Your task to perform on an android device: Go to Reddit.com Image 0: 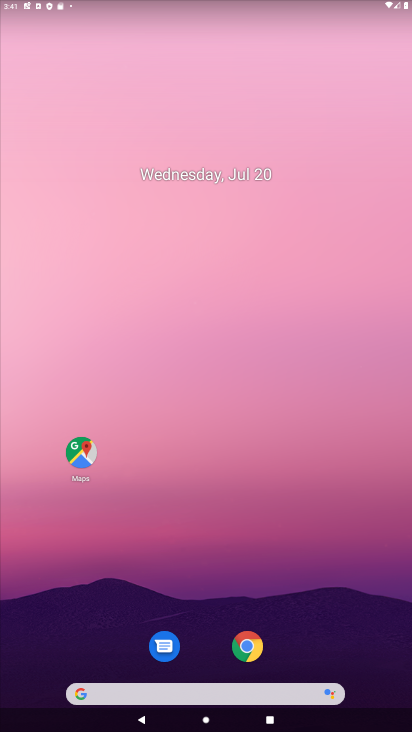
Step 0: click (257, 633)
Your task to perform on an android device: Go to Reddit.com Image 1: 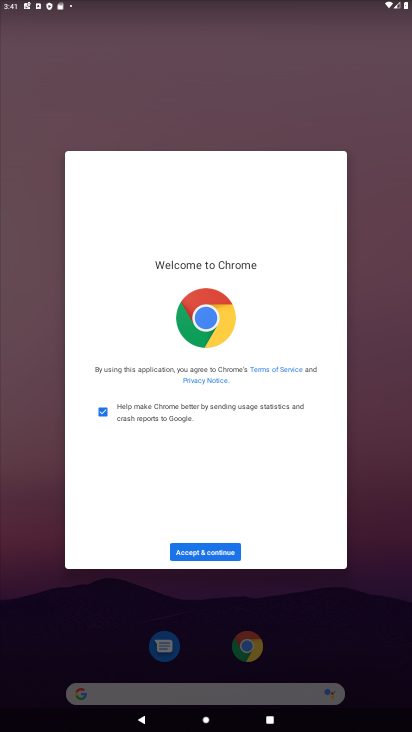
Step 1: click (219, 560)
Your task to perform on an android device: Go to Reddit.com Image 2: 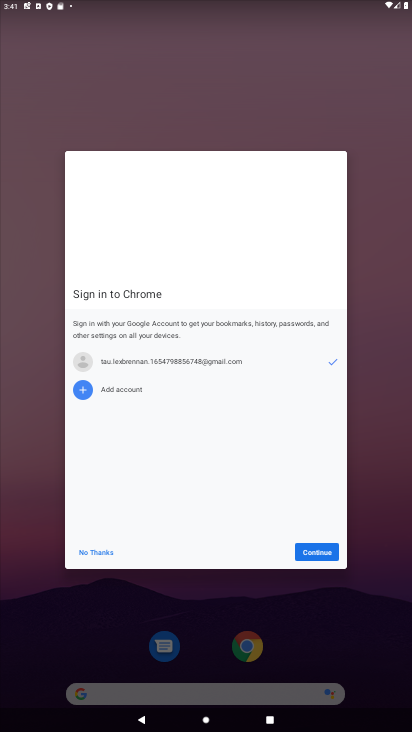
Step 2: click (220, 559)
Your task to perform on an android device: Go to Reddit.com Image 3: 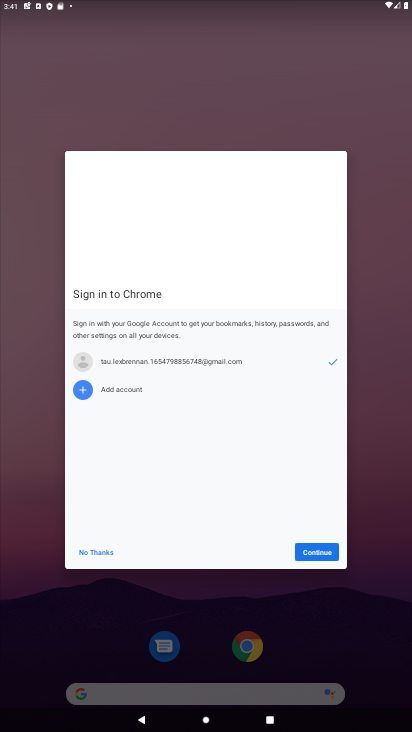
Step 3: click (308, 546)
Your task to perform on an android device: Go to Reddit.com Image 4: 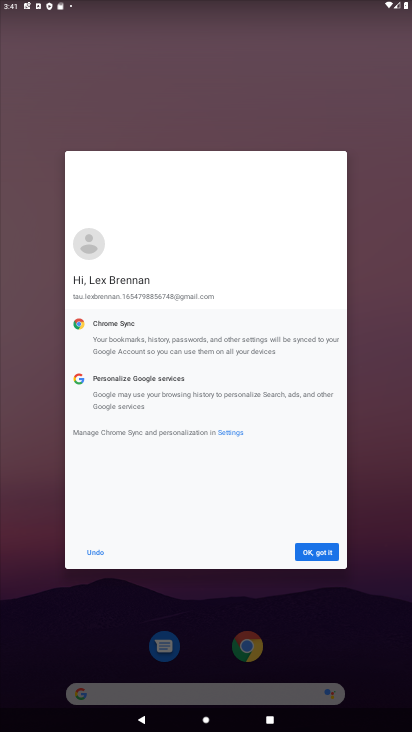
Step 4: click (308, 546)
Your task to perform on an android device: Go to Reddit.com Image 5: 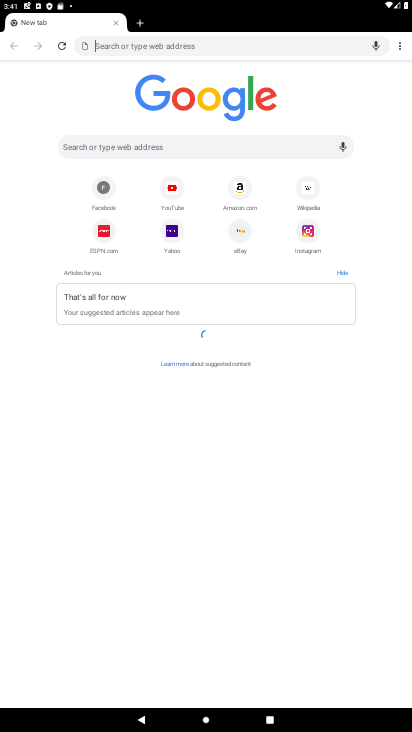
Step 5: click (193, 143)
Your task to perform on an android device: Go to Reddit.com Image 6: 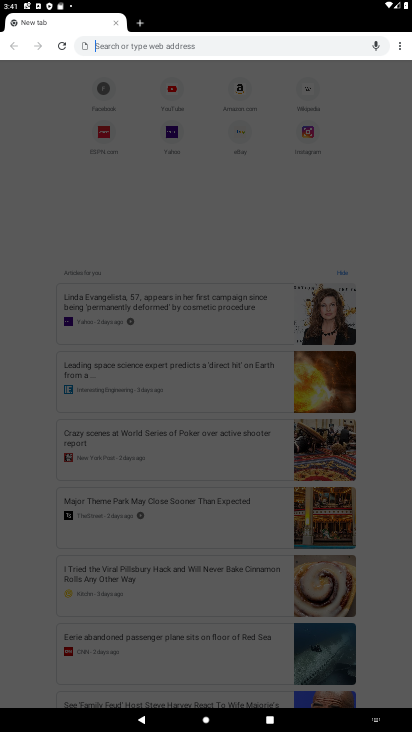
Step 6: type "Reddit.com"
Your task to perform on an android device: Go to Reddit.com Image 7: 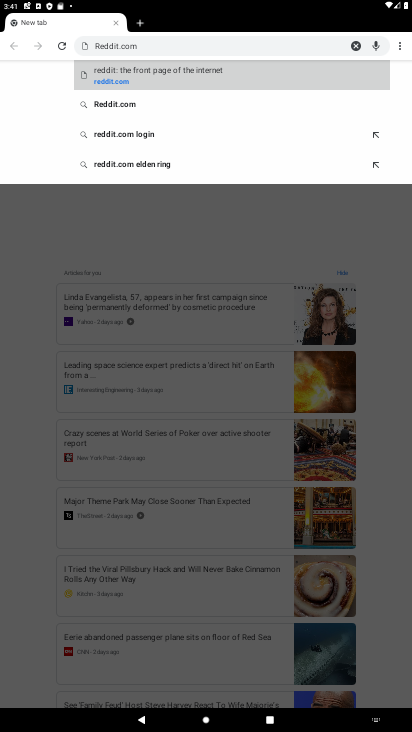
Step 7: click (164, 82)
Your task to perform on an android device: Go to Reddit.com Image 8: 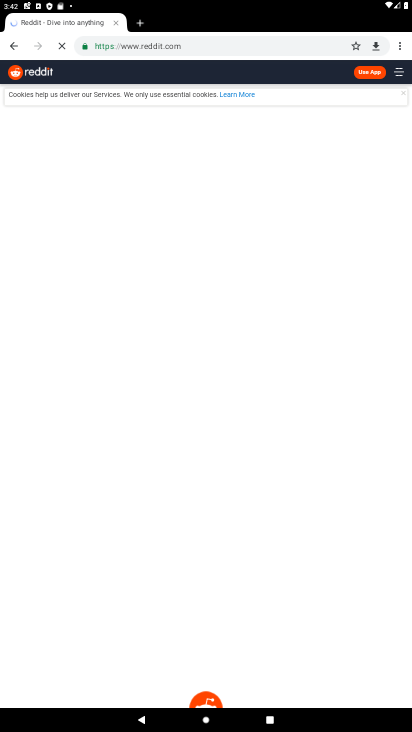
Step 8: task complete